Your task to perform on an android device: create a new album in the google photos Image 0: 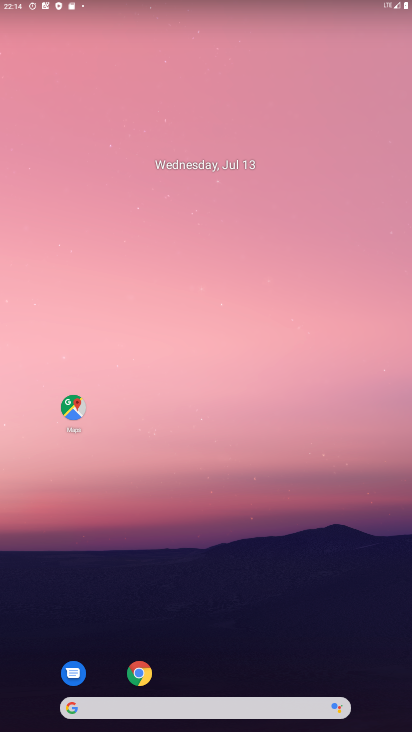
Step 0: drag from (259, 650) to (396, 388)
Your task to perform on an android device: create a new album in the google photos Image 1: 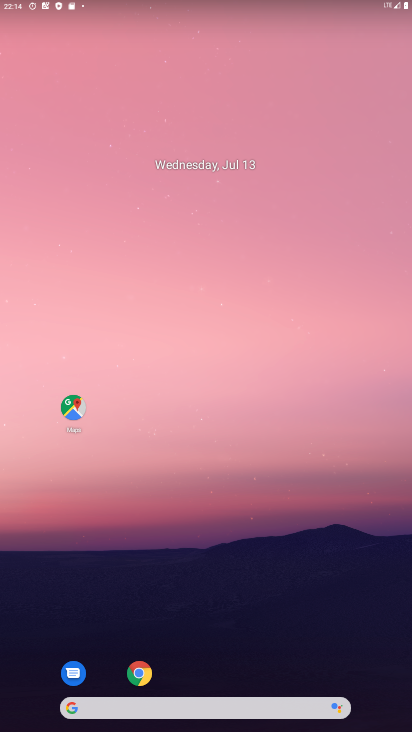
Step 1: drag from (258, 390) to (348, 52)
Your task to perform on an android device: create a new album in the google photos Image 2: 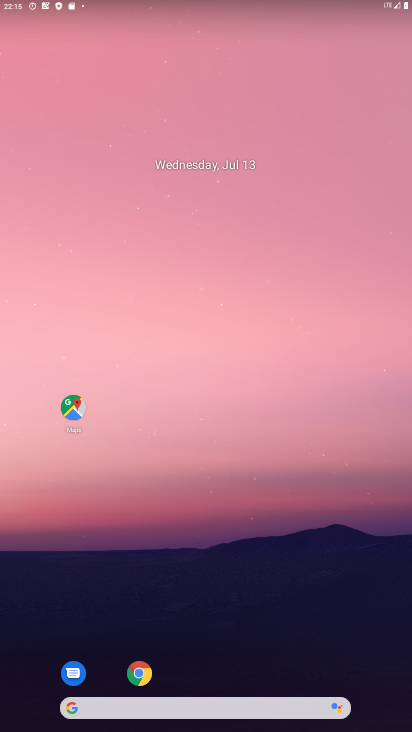
Step 2: drag from (221, 653) to (319, 279)
Your task to perform on an android device: create a new album in the google photos Image 3: 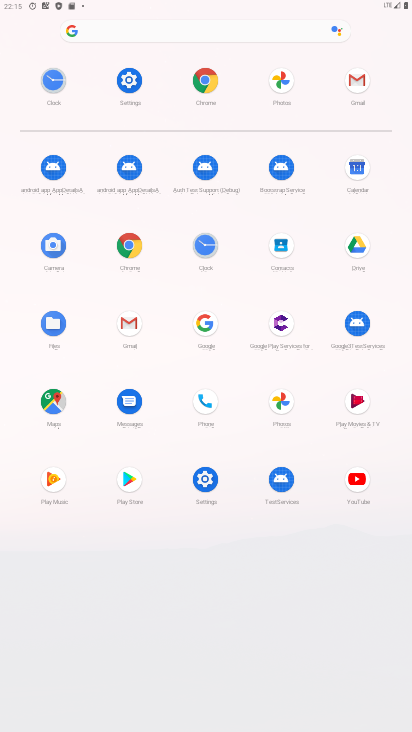
Step 3: drag from (231, 671) to (313, 367)
Your task to perform on an android device: create a new album in the google photos Image 4: 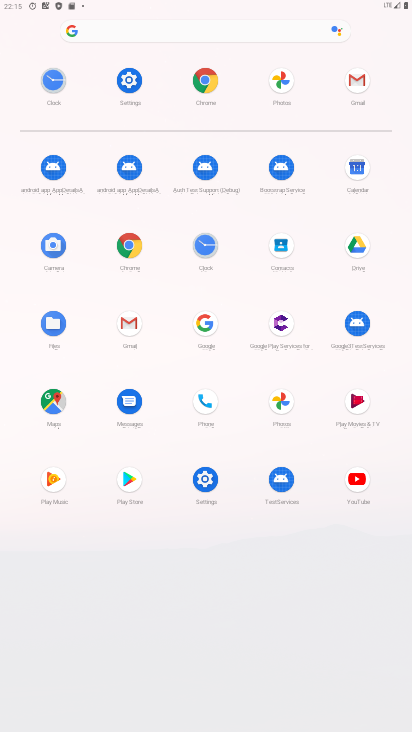
Step 4: click (276, 403)
Your task to perform on an android device: create a new album in the google photos Image 5: 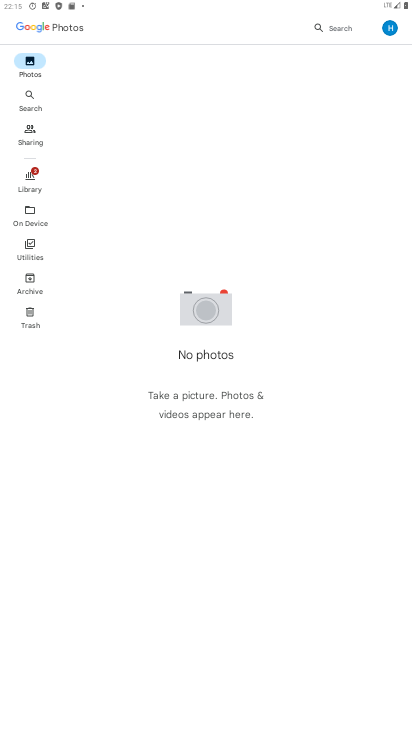
Step 5: drag from (192, 555) to (254, 115)
Your task to perform on an android device: create a new album in the google photos Image 6: 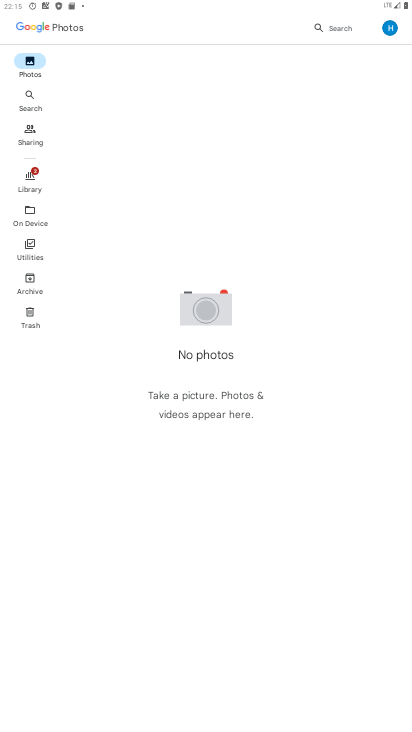
Step 6: click (23, 135)
Your task to perform on an android device: create a new album in the google photos Image 7: 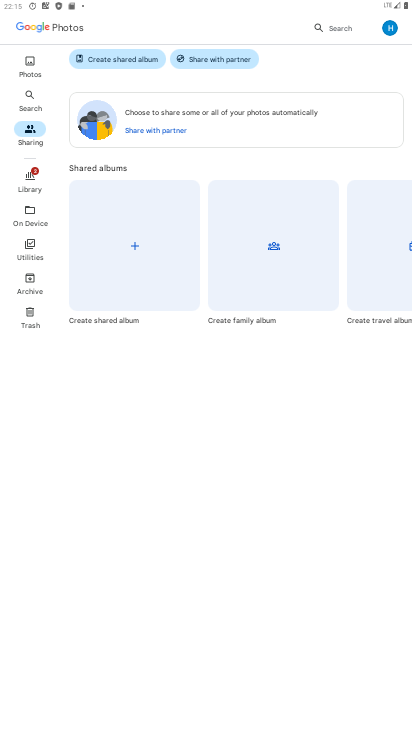
Step 7: click (135, 247)
Your task to perform on an android device: create a new album in the google photos Image 8: 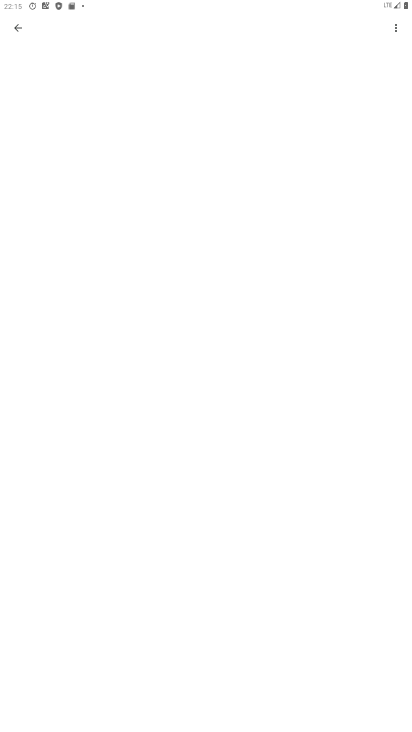
Step 8: drag from (214, 458) to (187, 6)
Your task to perform on an android device: create a new album in the google photos Image 9: 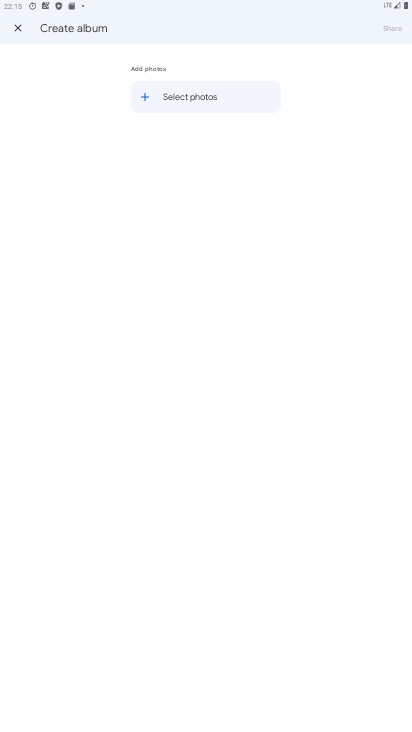
Step 9: click (12, 31)
Your task to perform on an android device: create a new album in the google photos Image 10: 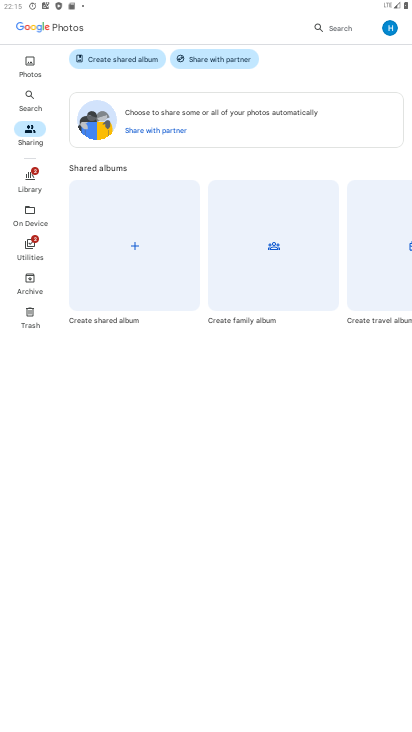
Step 10: click (92, 59)
Your task to perform on an android device: create a new album in the google photos Image 11: 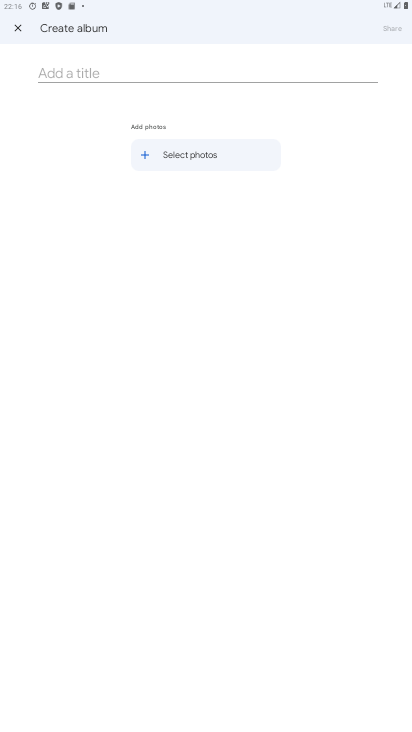
Step 11: click (75, 69)
Your task to perform on an android device: create a new album in the google photos Image 12: 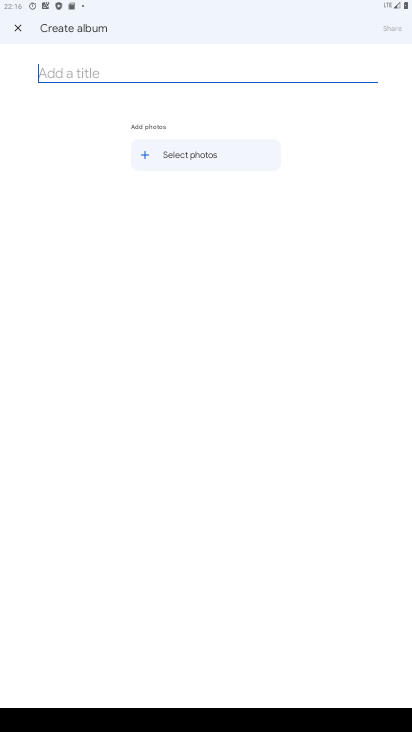
Step 12: type "nngv"
Your task to perform on an android device: create a new album in the google photos Image 13: 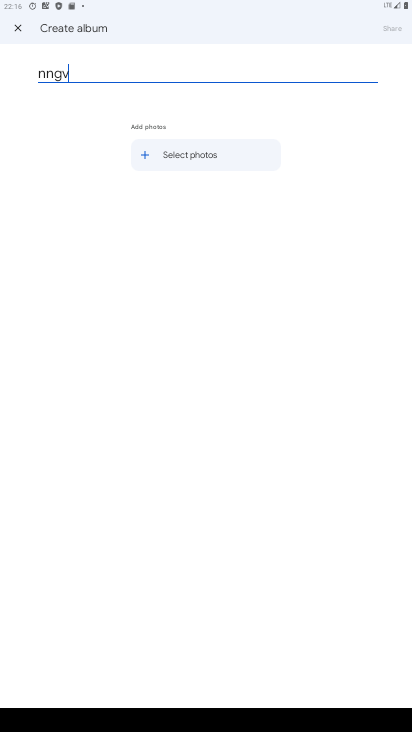
Step 13: click (150, 162)
Your task to perform on an android device: create a new album in the google photos Image 14: 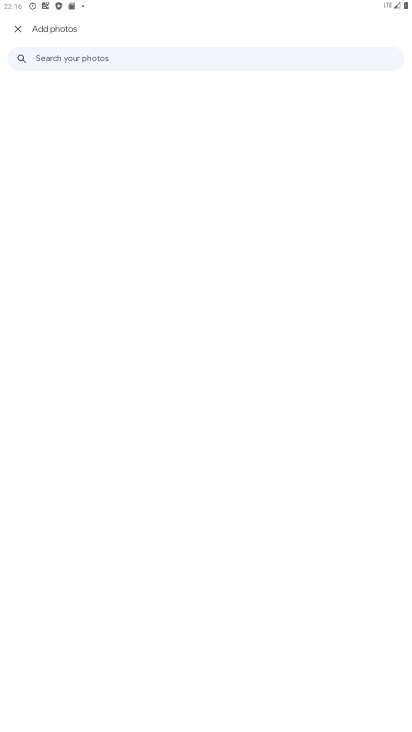
Step 14: click (123, 185)
Your task to perform on an android device: create a new album in the google photos Image 15: 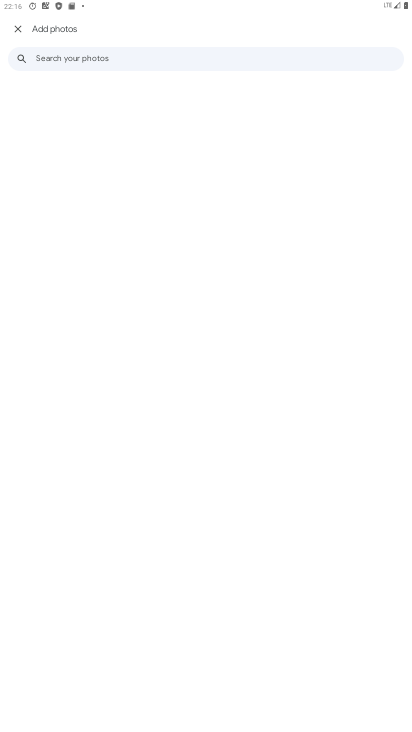
Step 15: task complete